Your task to perform on an android device: Search for sushi restaurants on Maps Image 0: 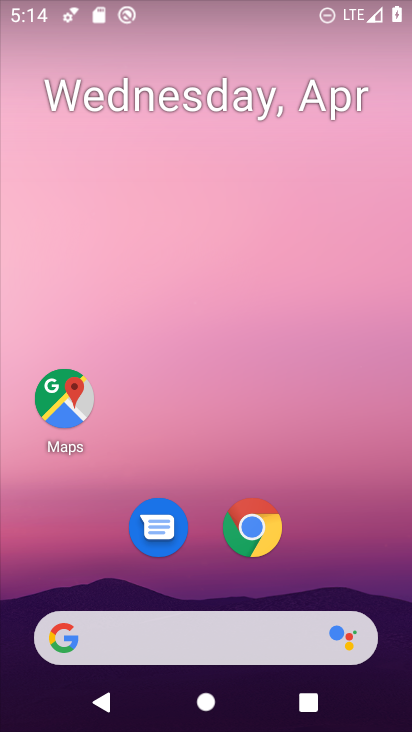
Step 0: click (68, 402)
Your task to perform on an android device: Search for sushi restaurants on Maps Image 1: 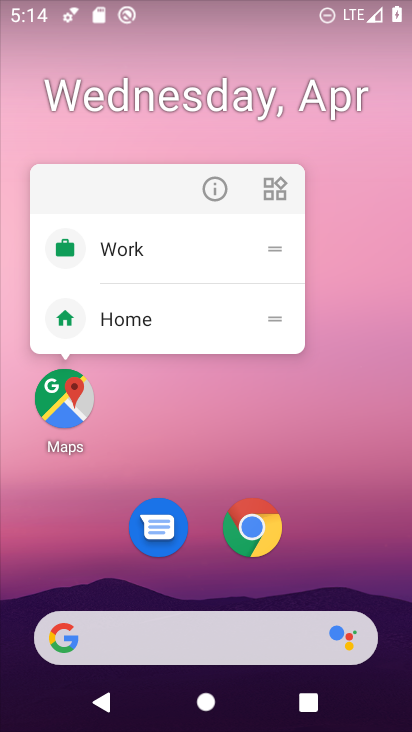
Step 1: click (68, 401)
Your task to perform on an android device: Search for sushi restaurants on Maps Image 2: 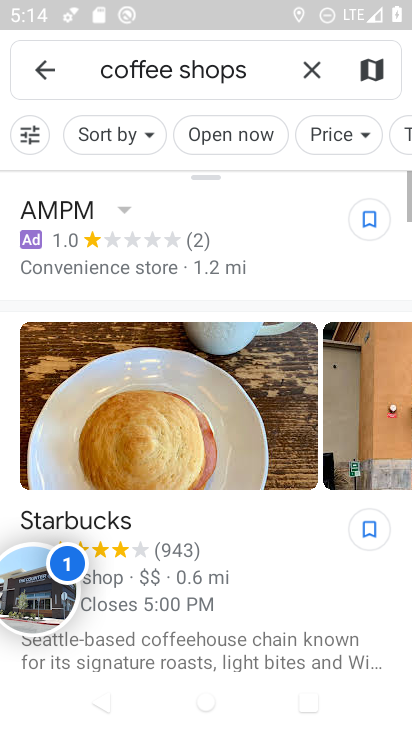
Step 2: click (308, 76)
Your task to perform on an android device: Search for sushi restaurants on Maps Image 3: 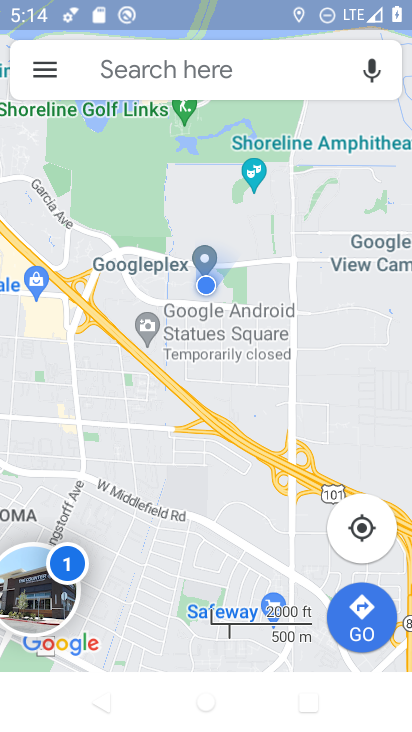
Step 3: click (112, 69)
Your task to perform on an android device: Search for sushi restaurants on Maps Image 4: 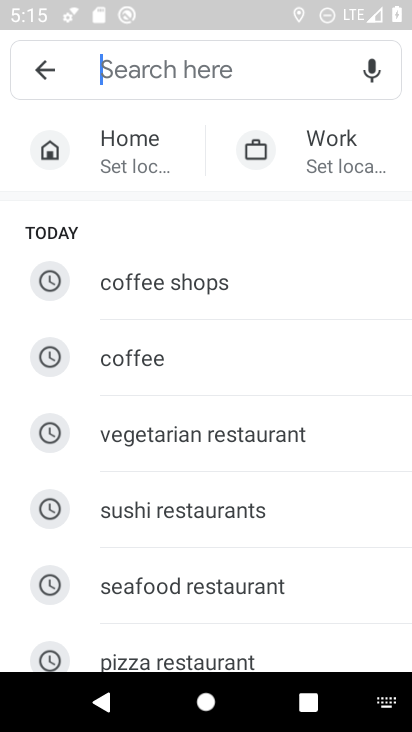
Step 4: type "sushi restaurant"
Your task to perform on an android device: Search for sushi restaurants on Maps Image 5: 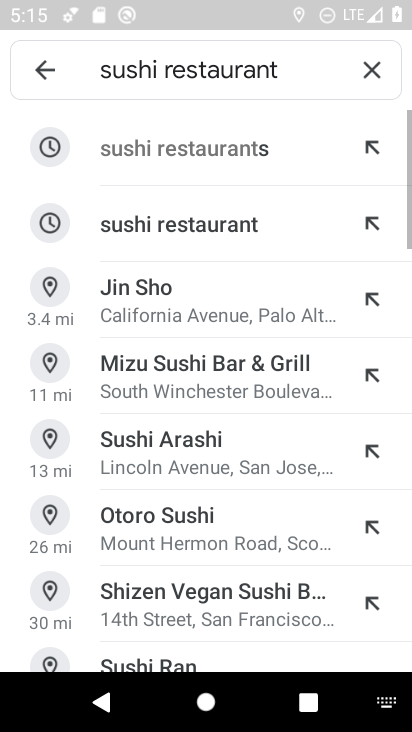
Step 5: click (204, 163)
Your task to perform on an android device: Search for sushi restaurants on Maps Image 6: 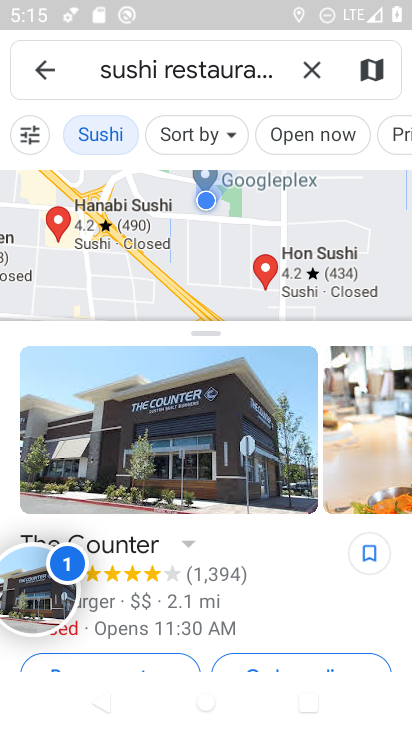
Step 6: task complete